Your task to perform on an android device: open device folders in google photos Image 0: 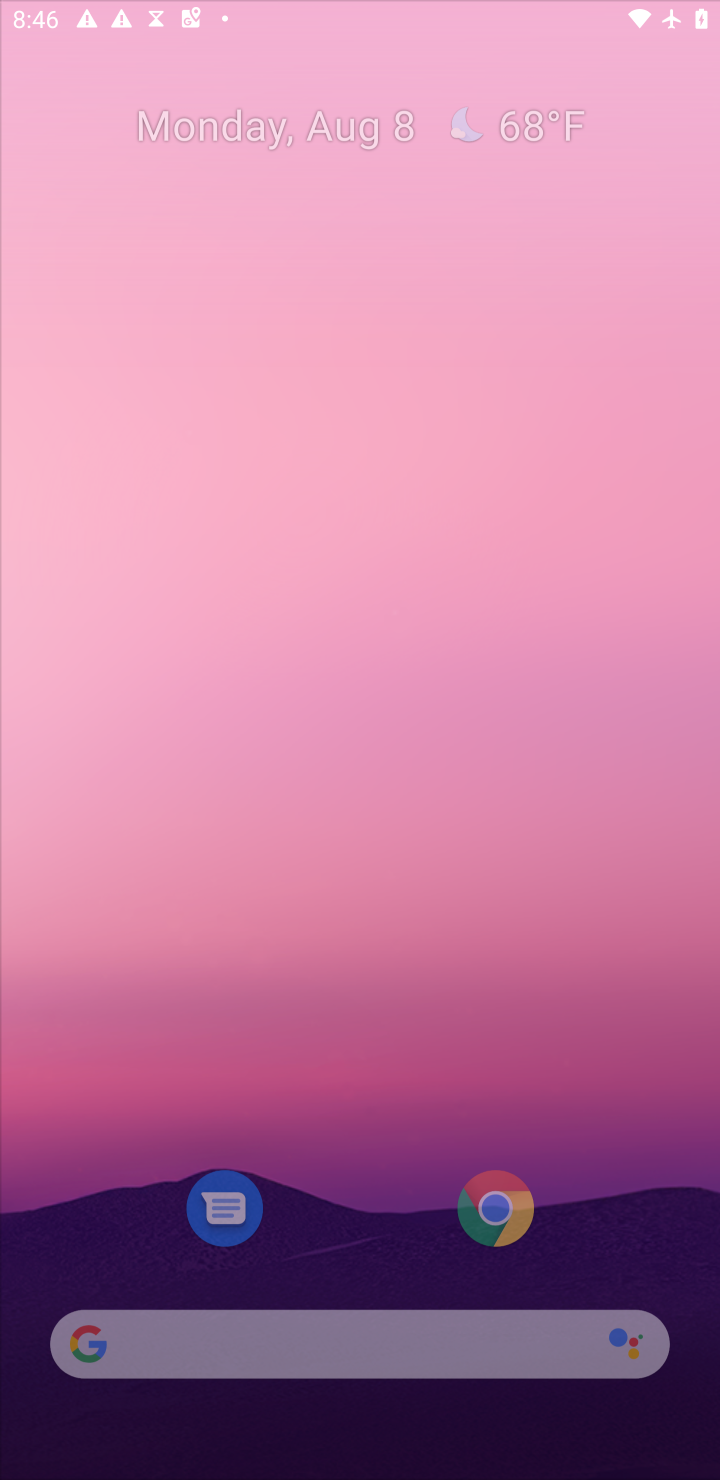
Step 0: press home button
Your task to perform on an android device: open device folders in google photos Image 1: 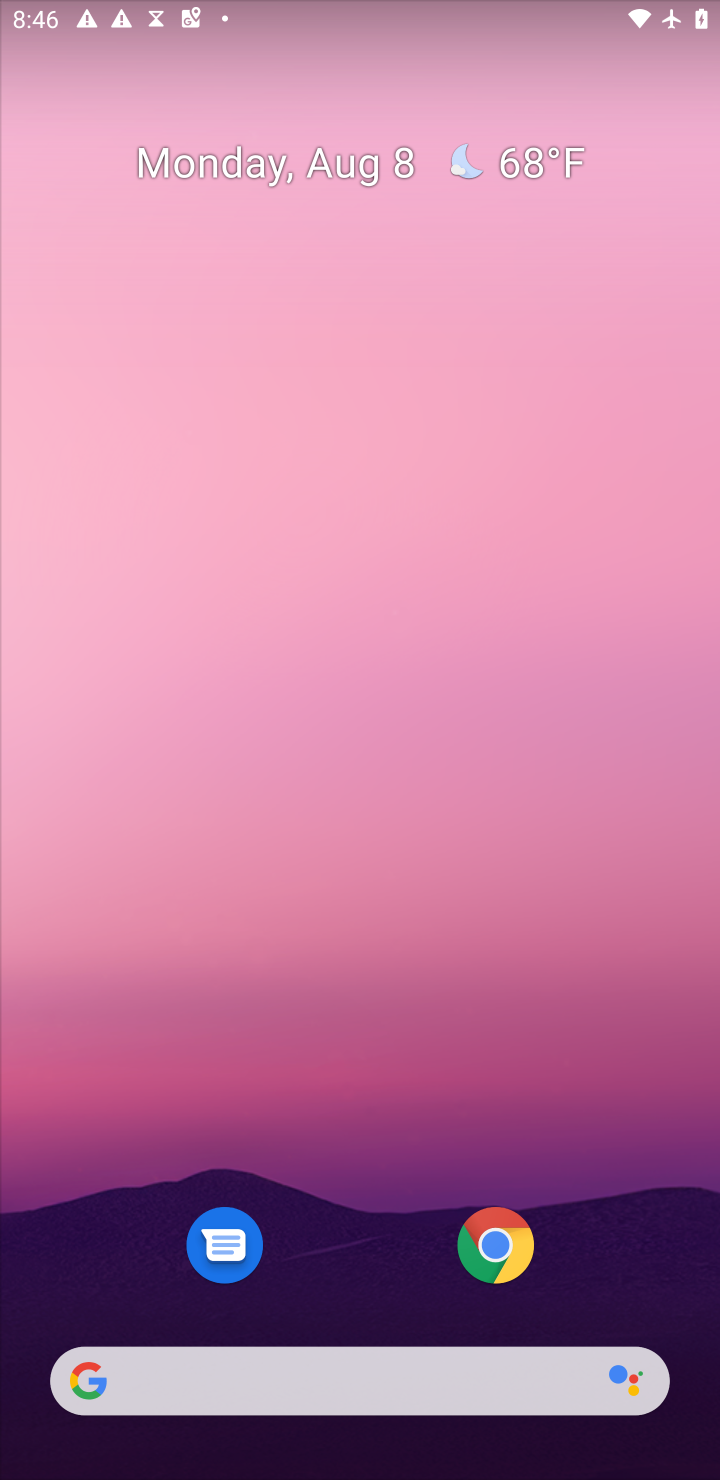
Step 1: drag from (341, 1291) to (448, 37)
Your task to perform on an android device: open device folders in google photos Image 2: 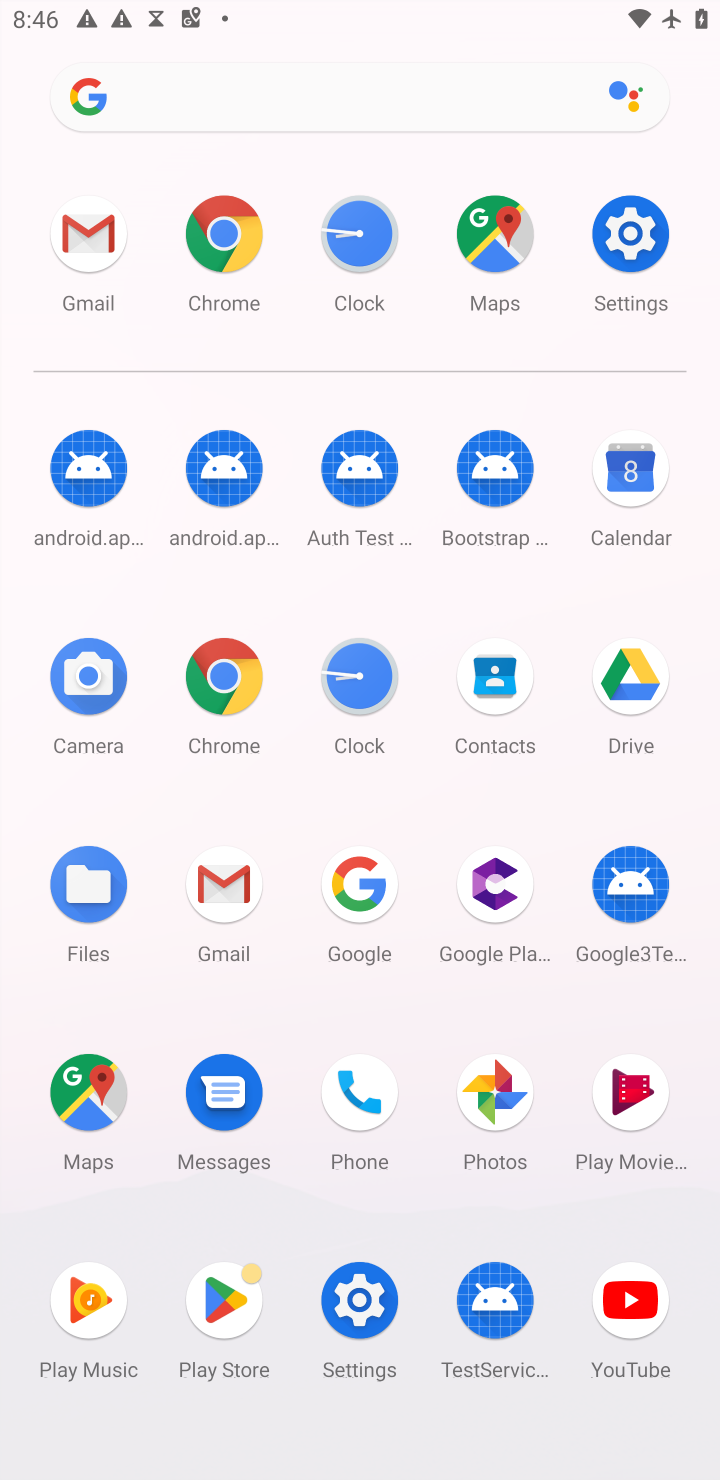
Step 2: click (495, 1114)
Your task to perform on an android device: open device folders in google photos Image 3: 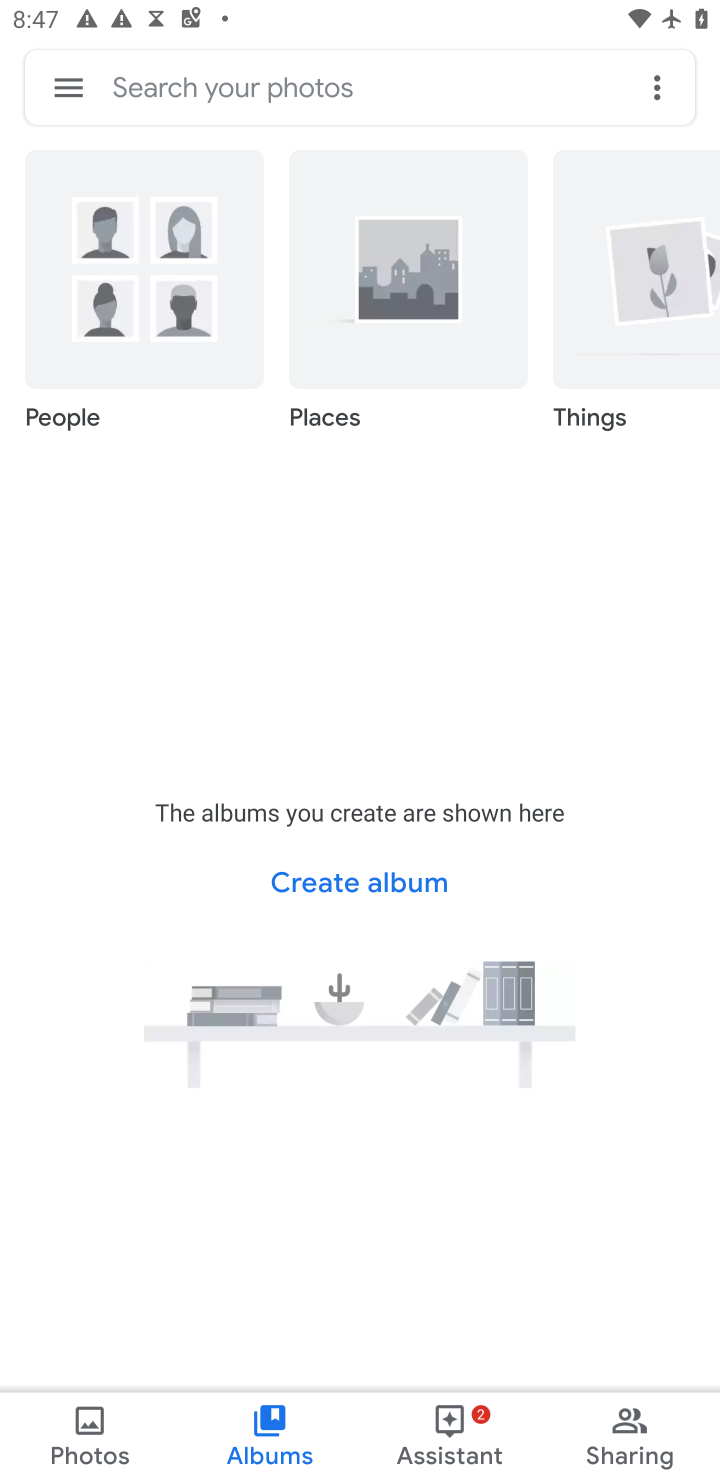
Step 3: click (53, 80)
Your task to perform on an android device: open device folders in google photos Image 4: 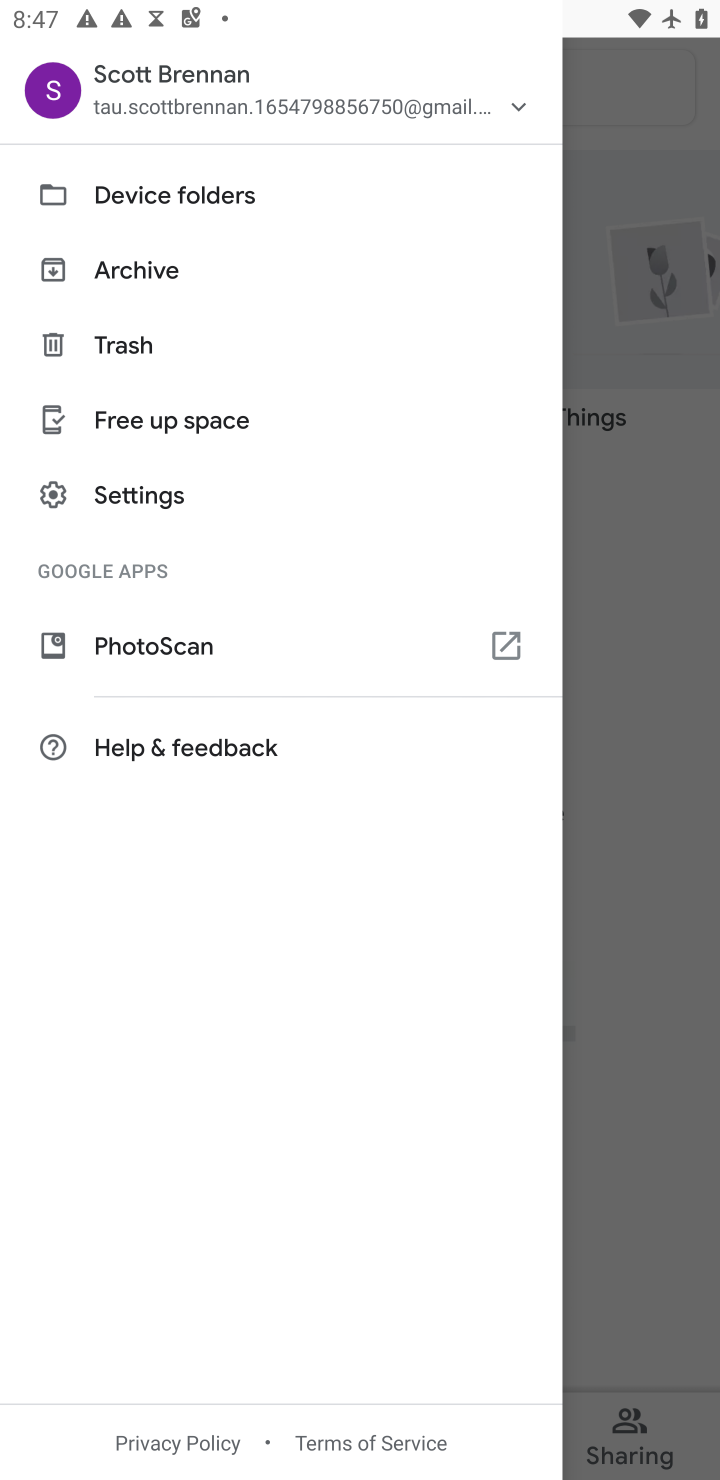
Step 4: click (211, 185)
Your task to perform on an android device: open device folders in google photos Image 5: 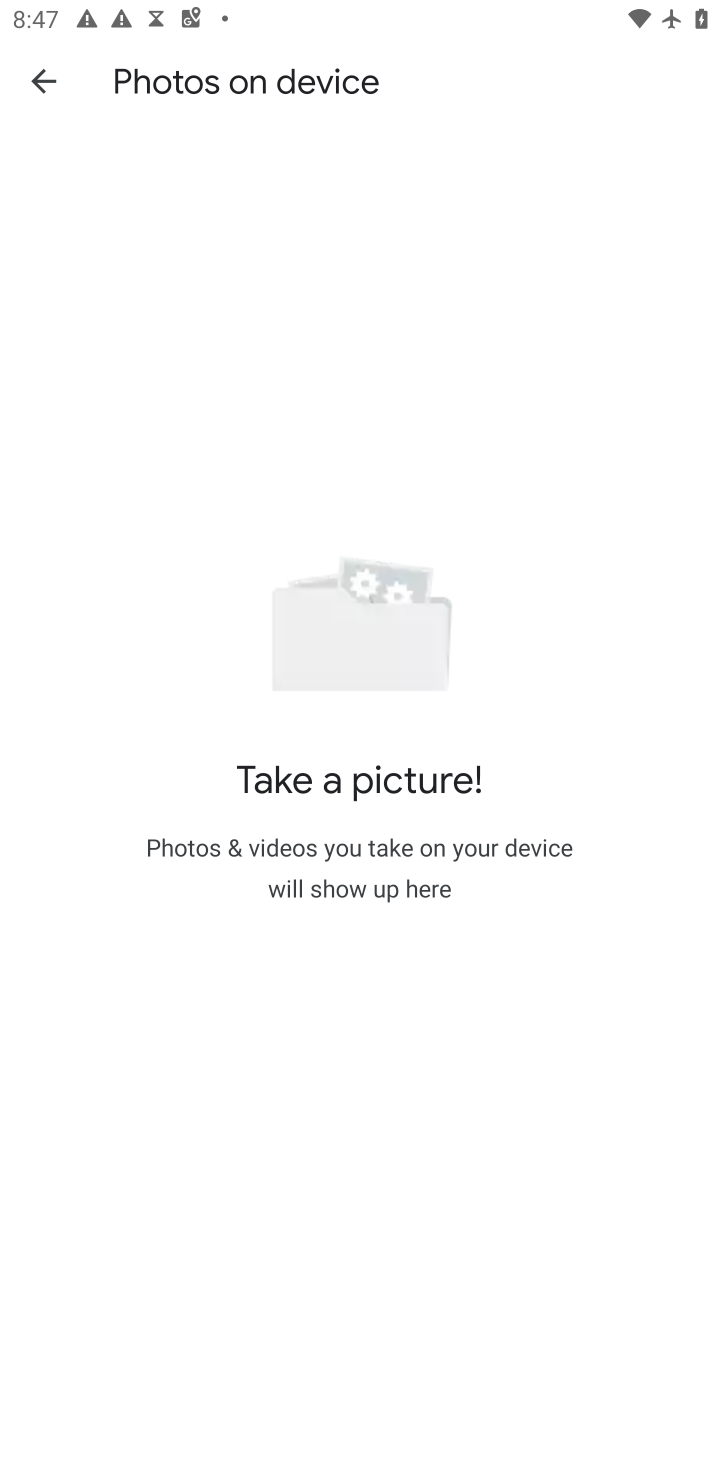
Step 5: task complete